Your task to perform on an android device: Show the shopping cart on amazon. Image 0: 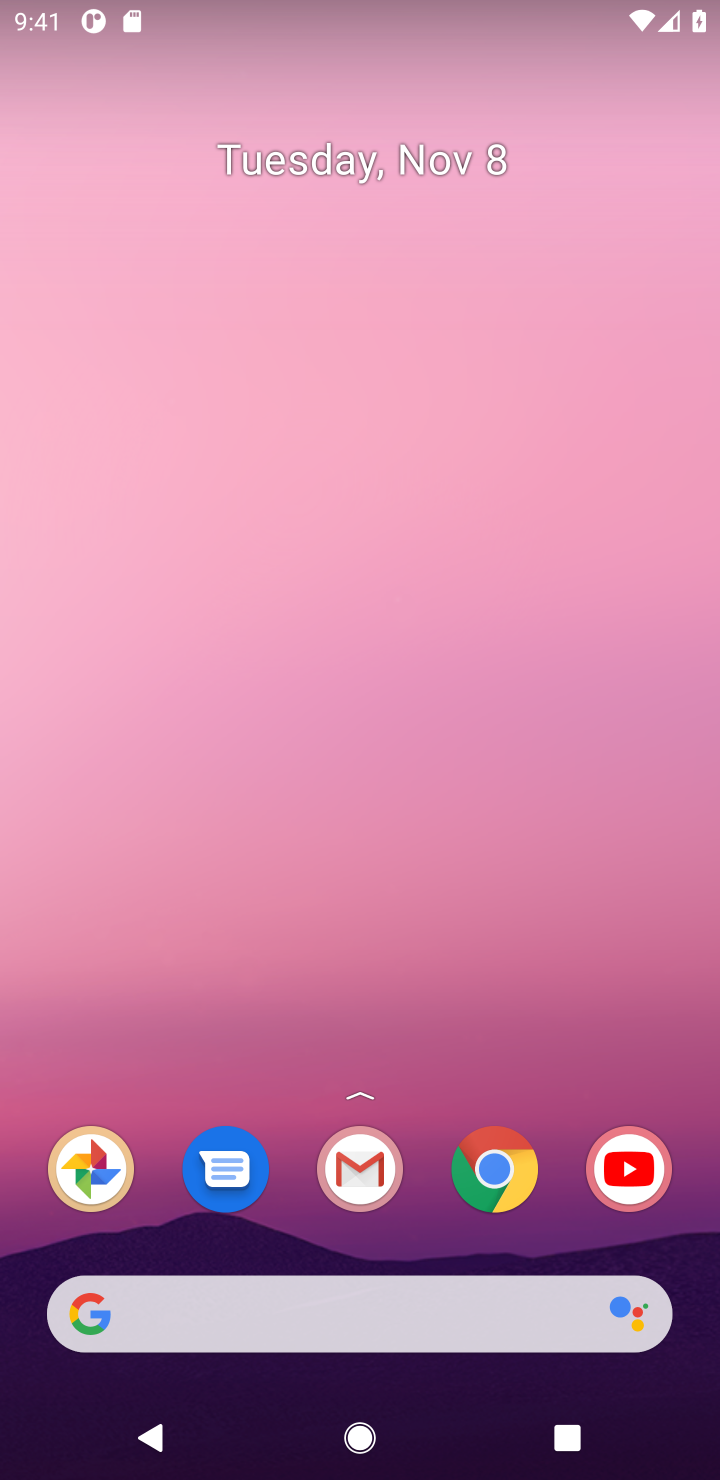
Step 0: click (497, 1141)
Your task to perform on an android device: Show the shopping cart on amazon. Image 1: 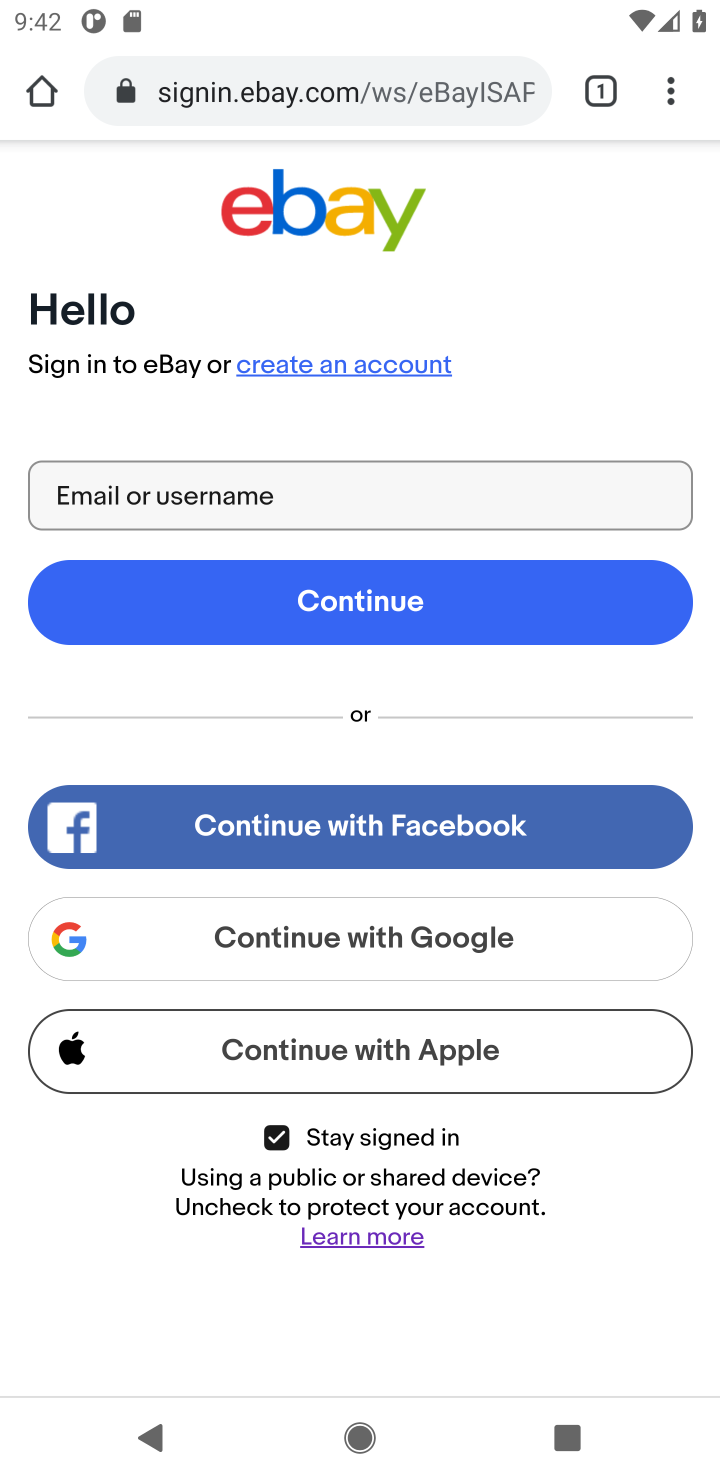
Step 1: click (464, 94)
Your task to perform on an android device: Show the shopping cart on amazon. Image 2: 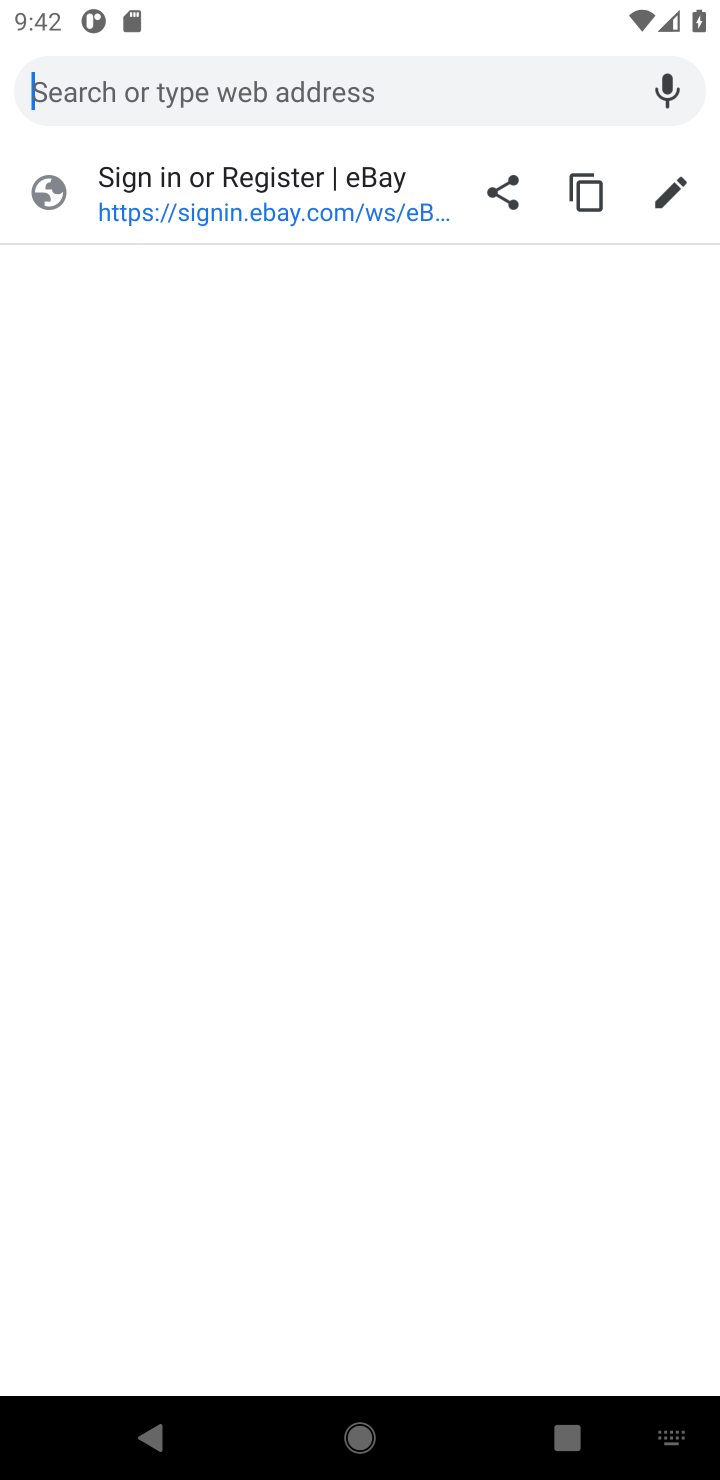
Step 2: type "amazon"
Your task to perform on an android device: Show the shopping cart on amazon. Image 3: 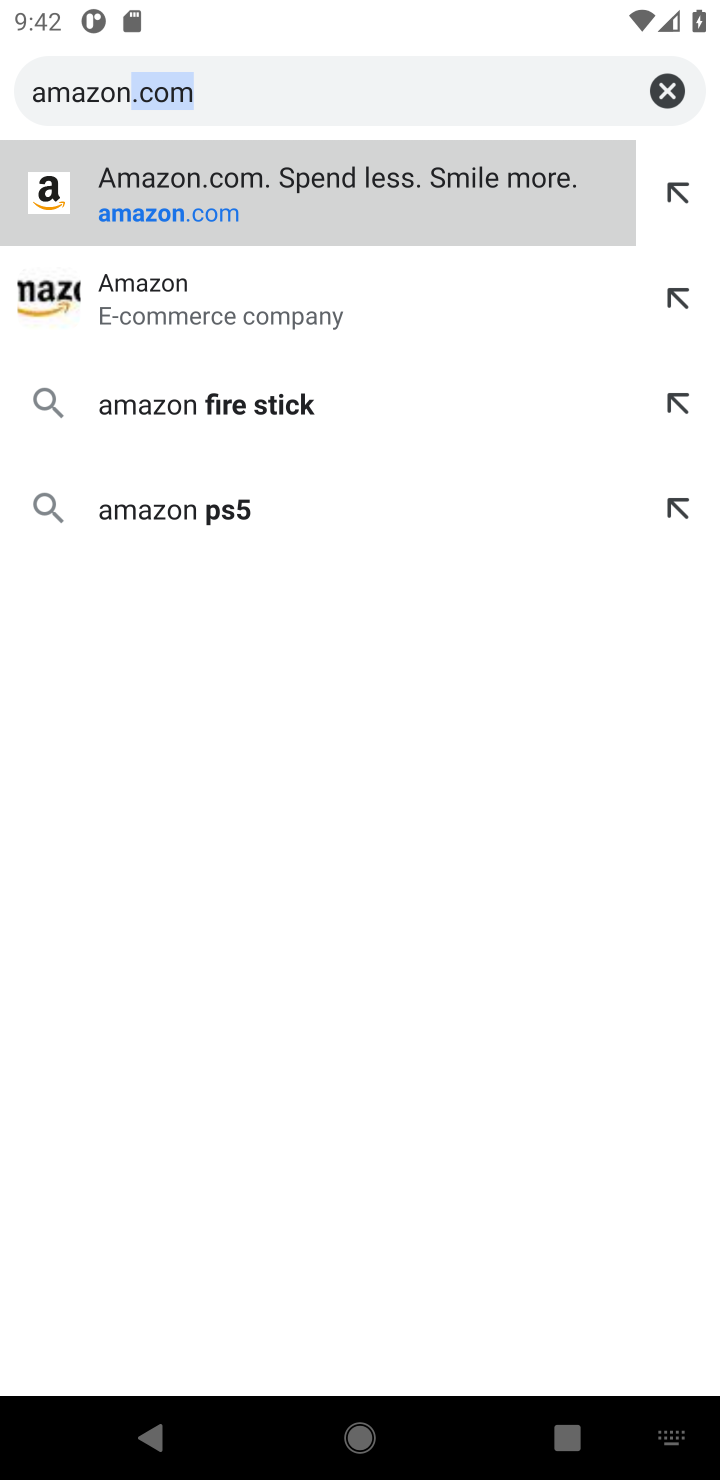
Step 3: press enter
Your task to perform on an android device: Show the shopping cart on amazon. Image 4: 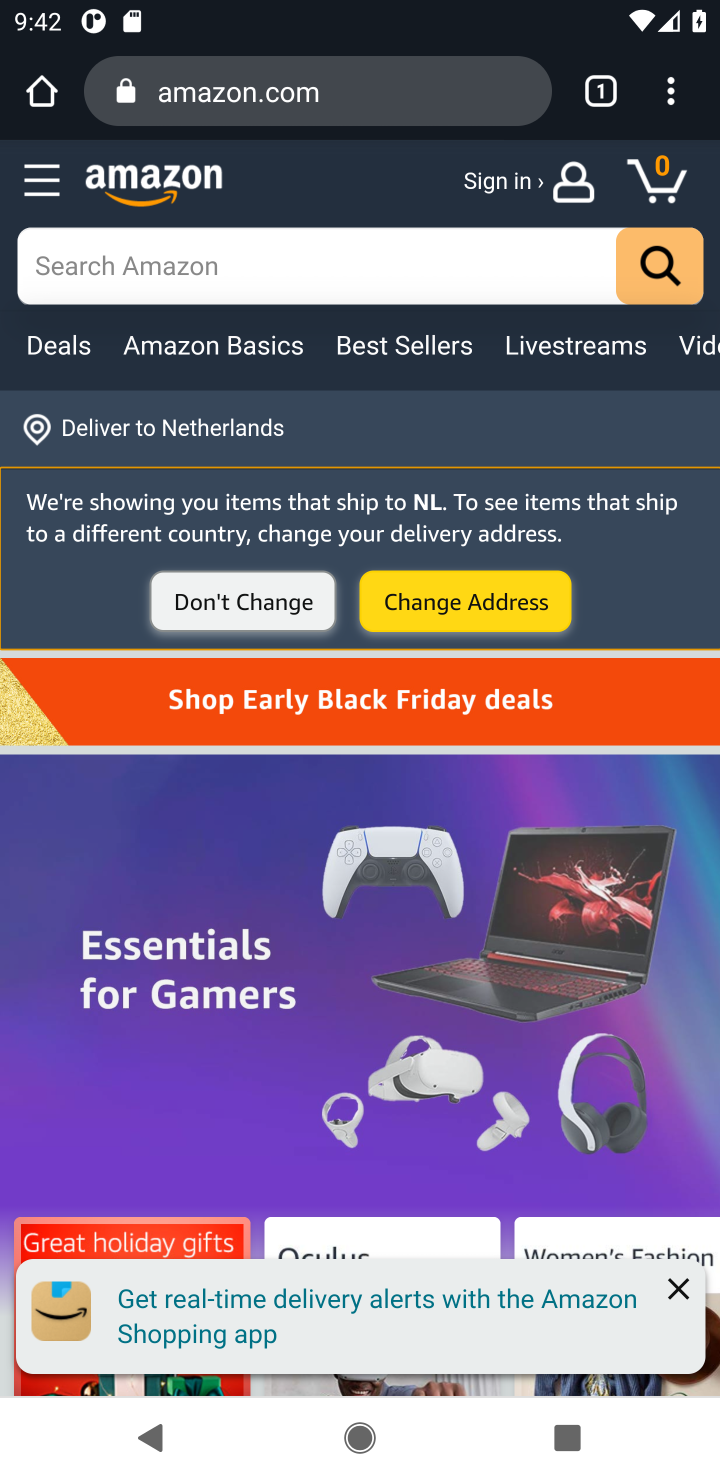
Step 4: task complete